Your task to perform on an android device: empty trash in the gmail app Image 0: 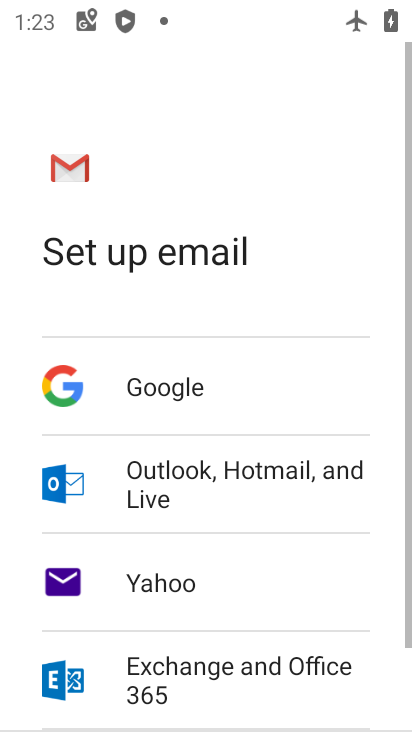
Step 0: press home button
Your task to perform on an android device: empty trash in the gmail app Image 1: 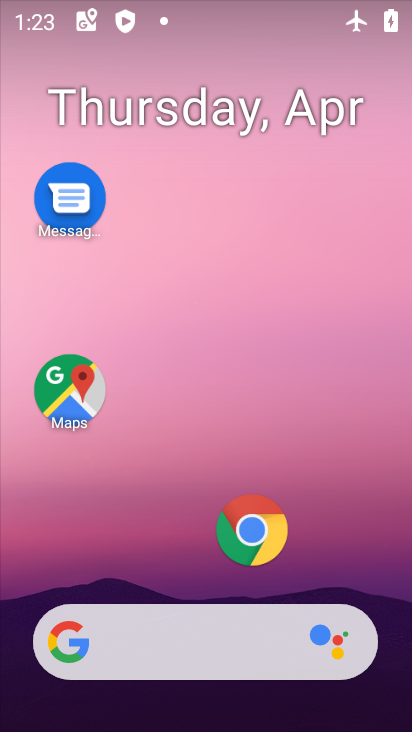
Step 1: drag from (185, 588) to (204, 36)
Your task to perform on an android device: empty trash in the gmail app Image 2: 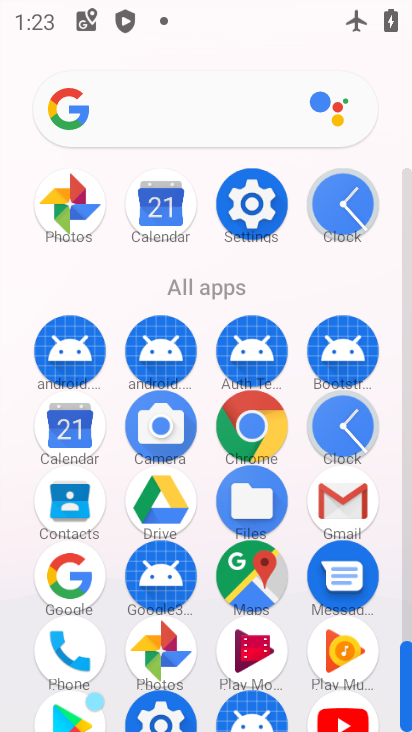
Step 2: click (355, 509)
Your task to perform on an android device: empty trash in the gmail app Image 3: 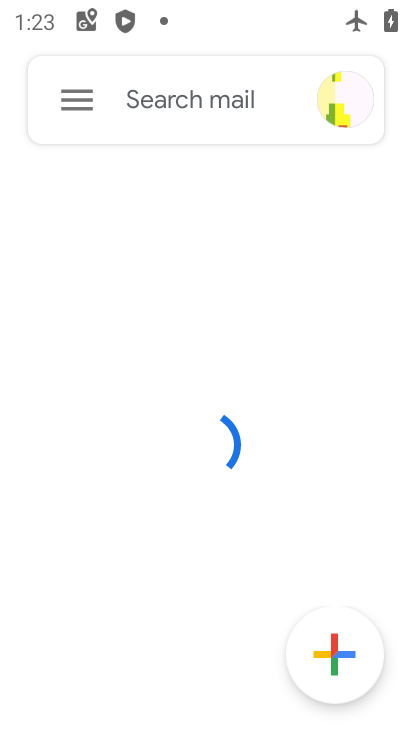
Step 3: click (72, 113)
Your task to perform on an android device: empty trash in the gmail app Image 4: 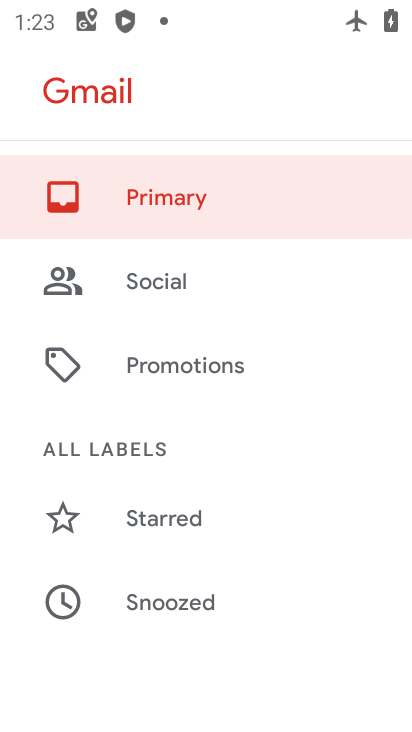
Step 4: drag from (188, 548) to (176, 105)
Your task to perform on an android device: empty trash in the gmail app Image 5: 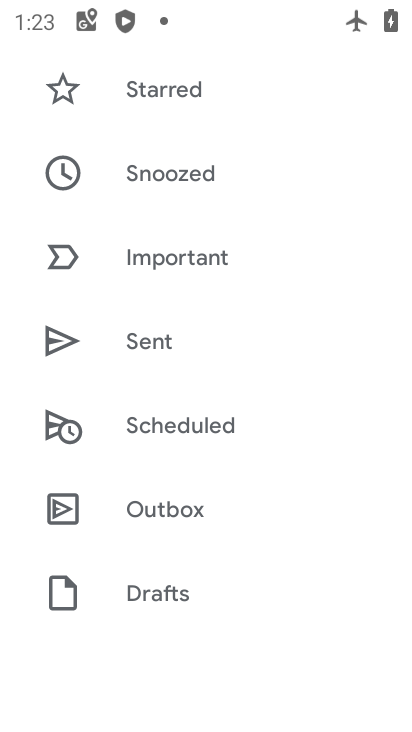
Step 5: drag from (182, 583) to (176, 116)
Your task to perform on an android device: empty trash in the gmail app Image 6: 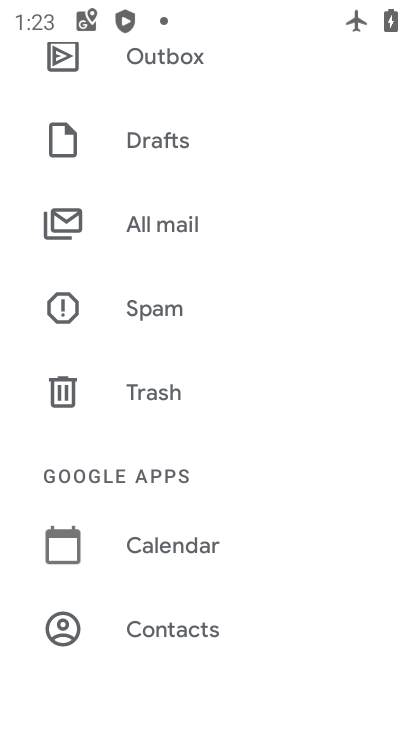
Step 6: click (164, 379)
Your task to perform on an android device: empty trash in the gmail app Image 7: 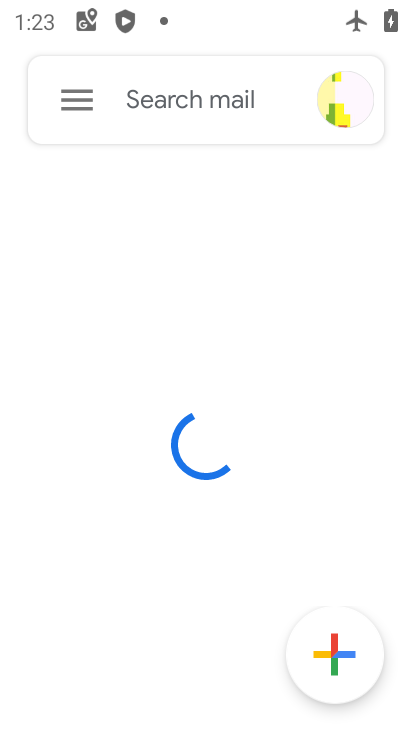
Step 7: task complete